Your task to perform on an android device: turn off data saver in the chrome app Image 0: 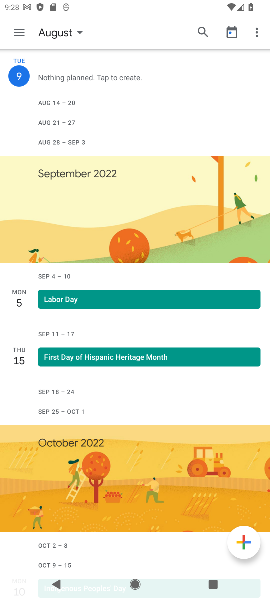
Step 0: press home button
Your task to perform on an android device: turn off data saver in the chrome app Image 1: 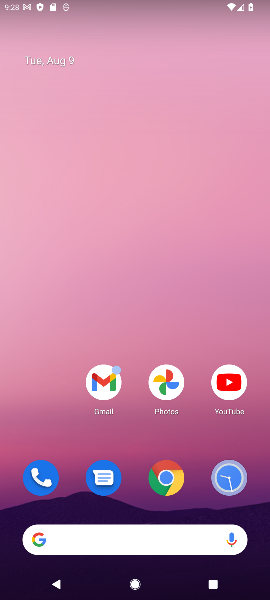
Step 1: click (177, 487)
Your task to perform on an android device: turn off data saver in the chrome app Image 2: 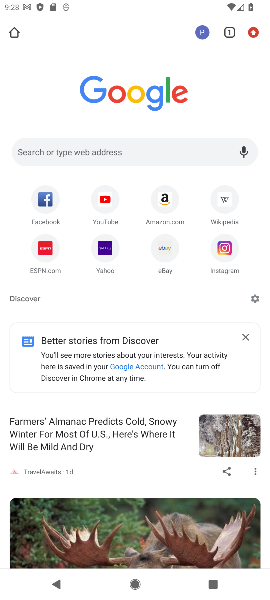
Step 2: click (262, 32)
Your task to perform on an android device: turn off data saver in the chrome app Image 3: 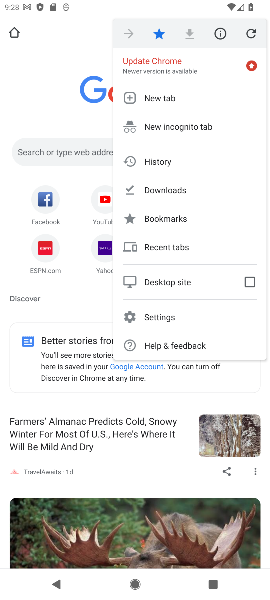
Step 3: task complete